Your task to perform on an android device: When is my next meeting? Image 0: 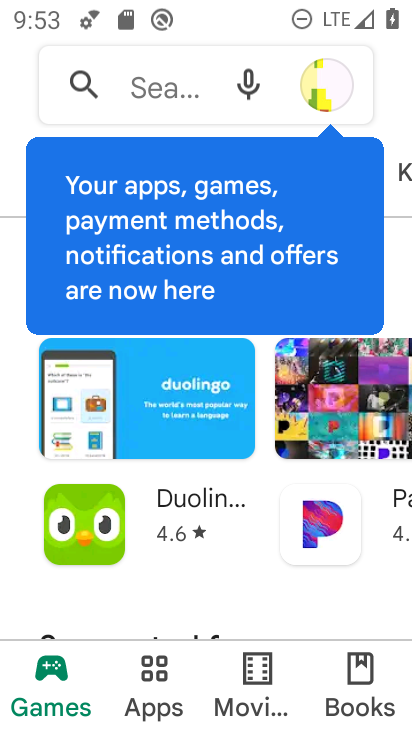
Step 0: press home button
Your task to perform on an android device: When is my next meeting? Image 1: 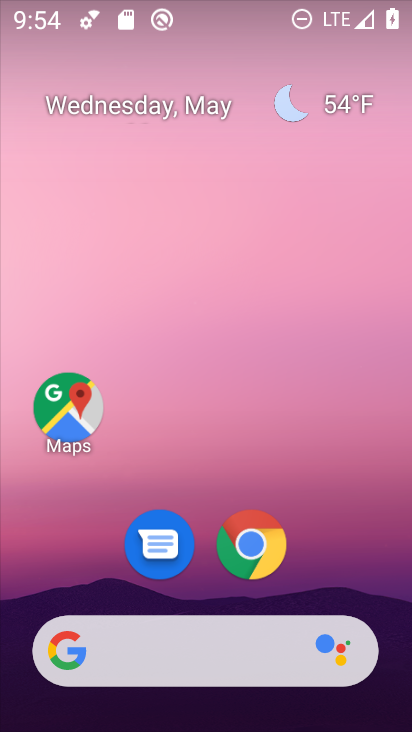
Step 1: click (42, 132)
Your task to perform on an android device: When is my next meeting? Image 2: 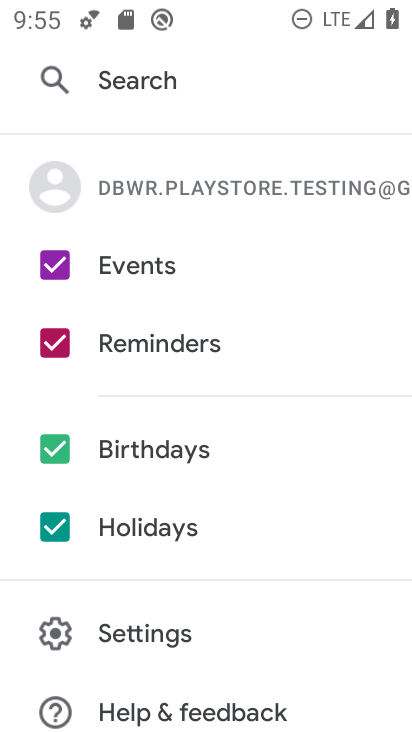
Step 2: task complete